Your task to perform on an android device: turn on data saver in the chrome app Image 0: 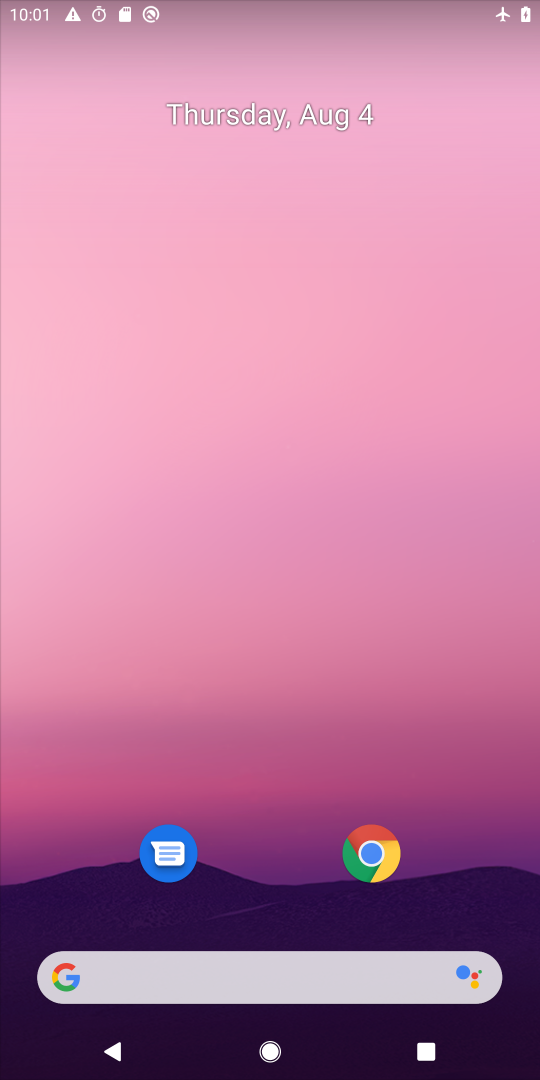
Step 0: drag from (280, 797) to (301, 0)
Your task to perform on an android device: turn on data saver in the chrome app Image 1: 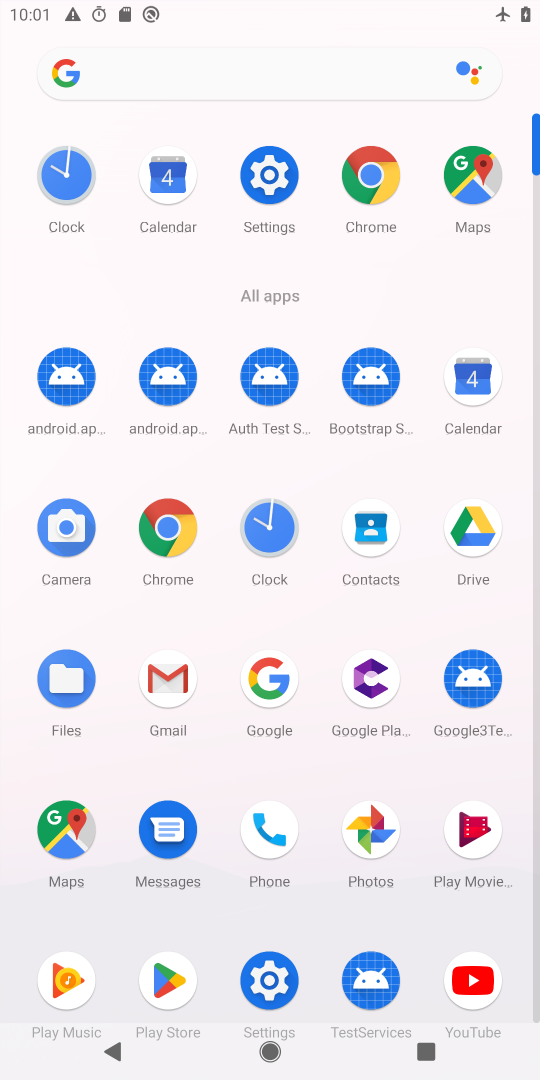
Step 1: click (184, 550)
Your task to perform on an android device: turn on data saver in the chrome app Image 2: 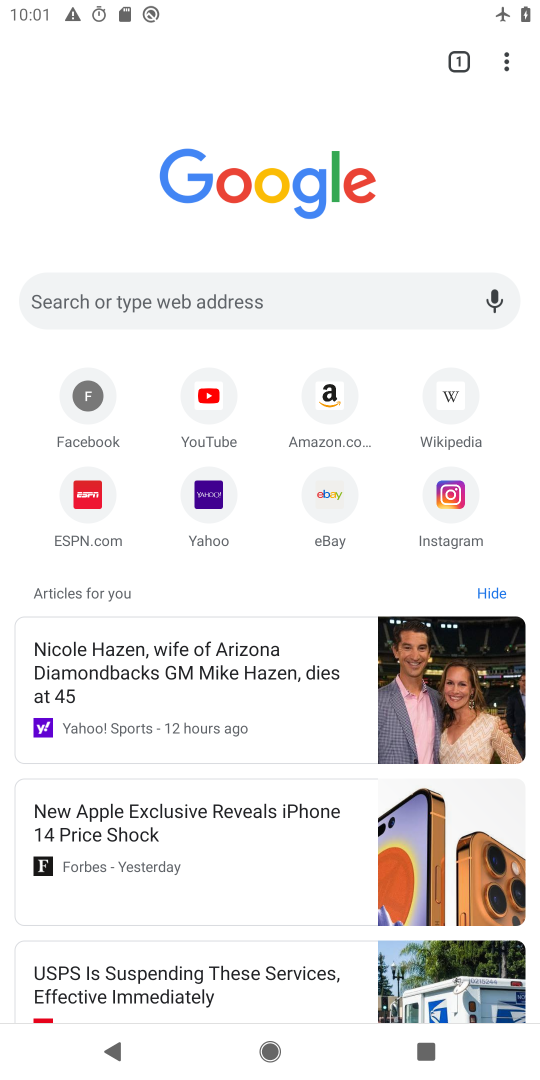
Step 2: click (505, 53)
Your task to perform on an android device: turn on data saver in the chrome app Image 3: 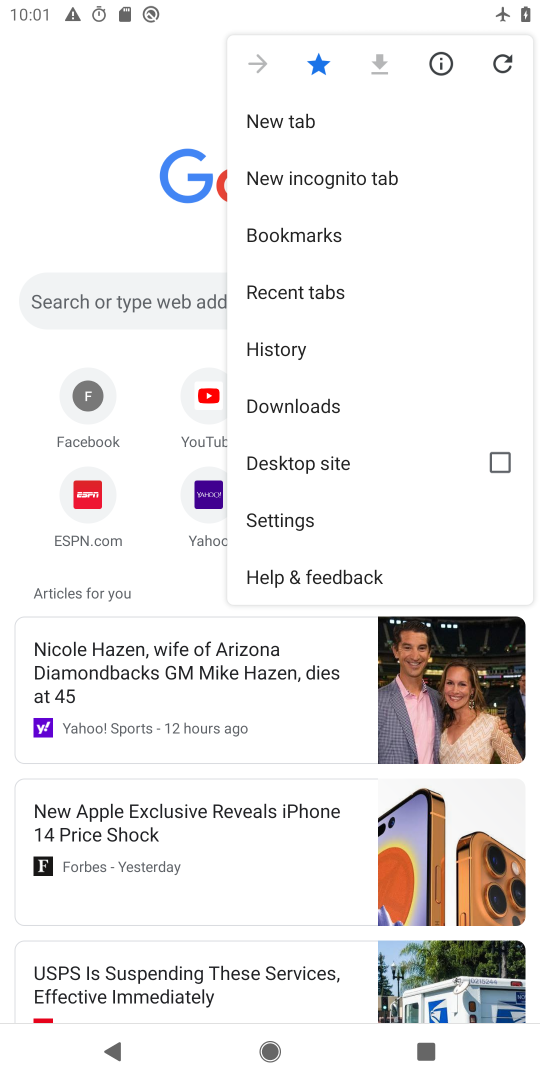
Step 3: click (289, 515)
Your task to perform on an android device: turn on data saver in the chrome app Image 4: 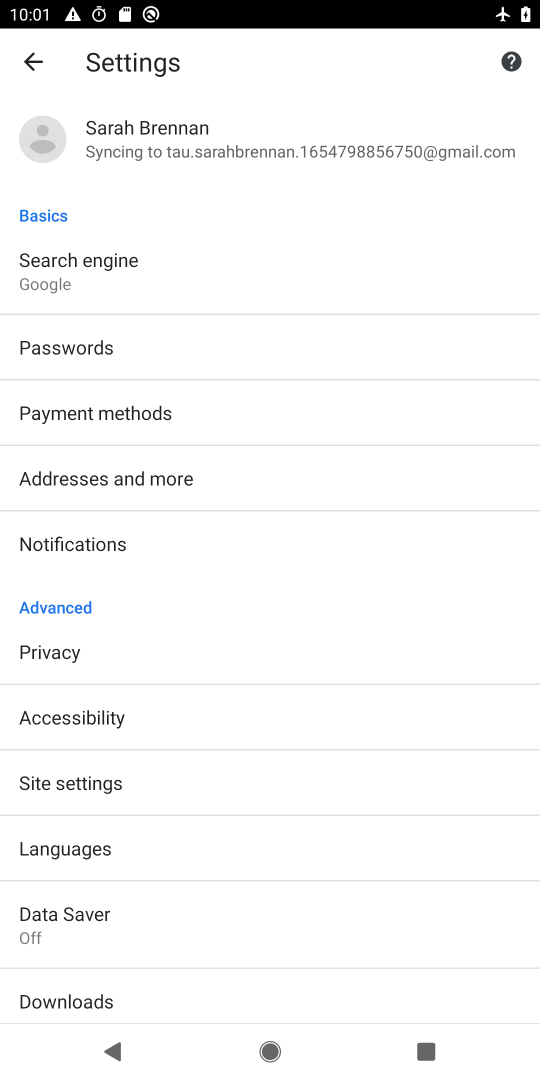
Step 4: click (68, 928)
Your task to perform on an android device: turn on data saver in the chrome app Image 5: 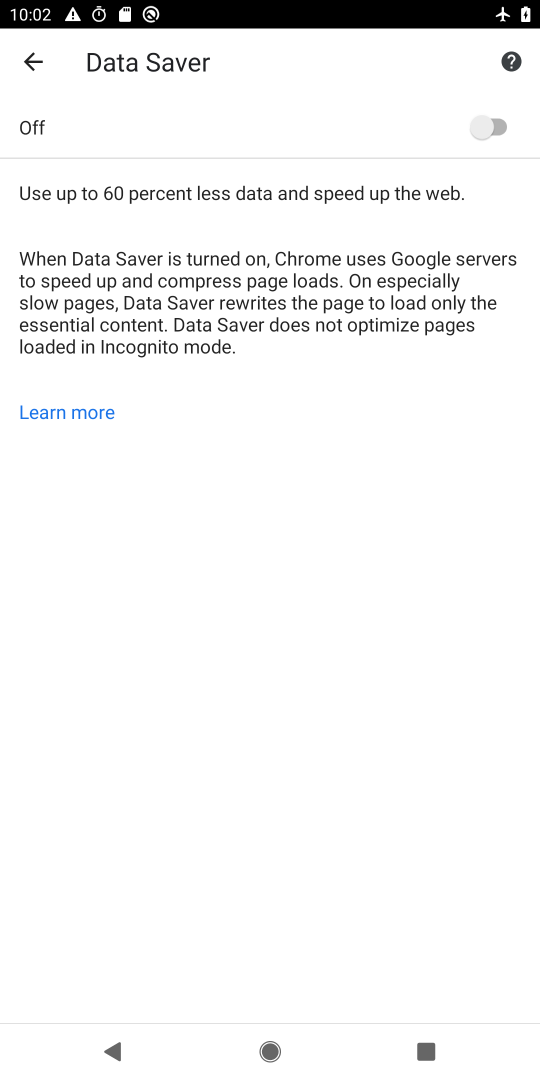
Step 5: click (443, 120)
Your task to perform on an android device: turn on data saver in the chrome app Image 6: 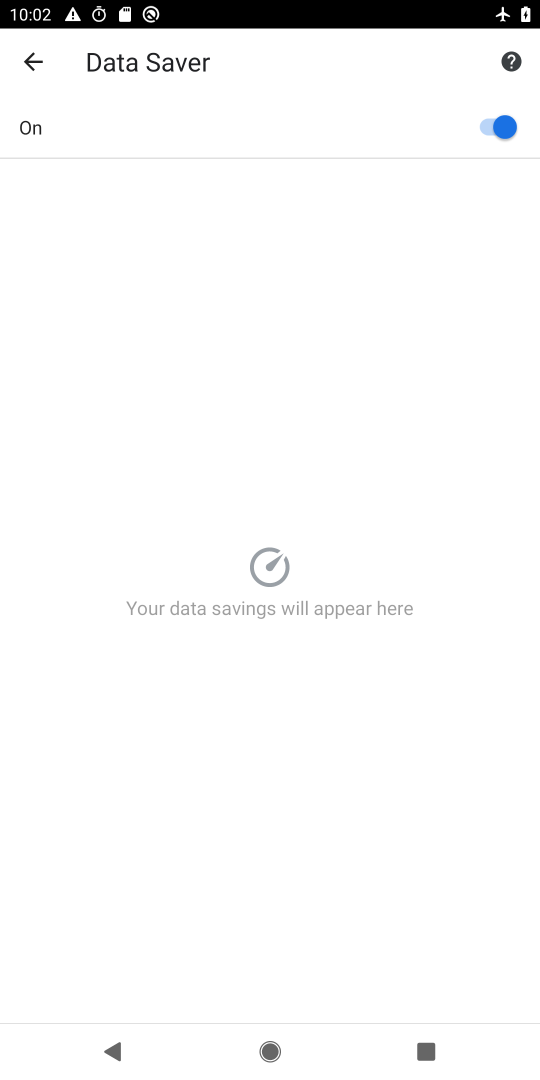
Step 6: task complete